Your task to perform on an android device: Open Google Chrome and click the shortcut for Amazon.com Image 0: 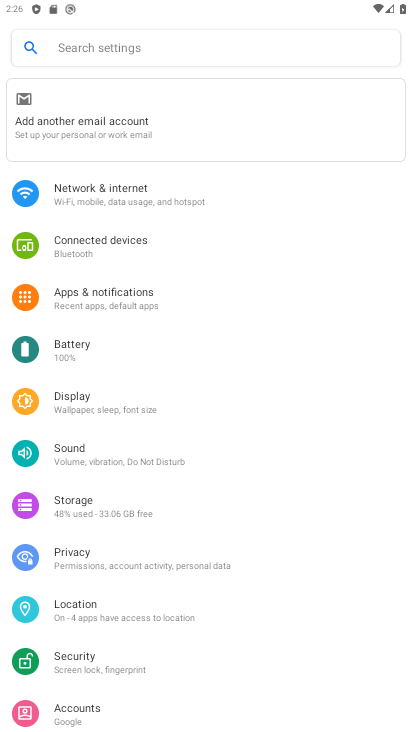
Step 0: press home button
Your task to perform on an android device: Open Google Chrome and click the shortcut for Amazon.com Image 1: 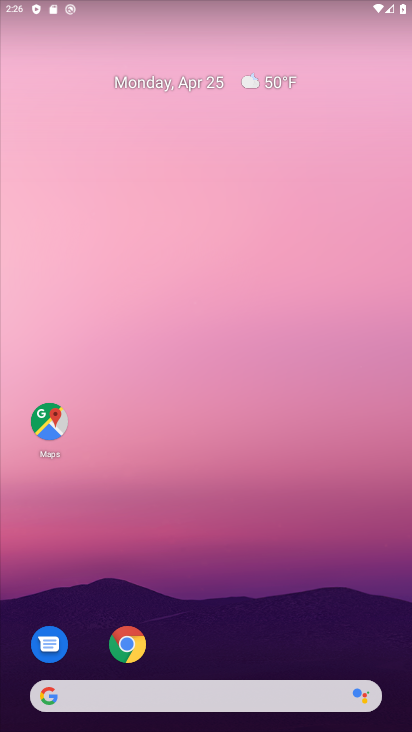
Step 1: drag from (176, 606) to (212, 266)
Your task to perform on an android device: Open Google Chrome and click the shortcut for Amazon.com Image 2: 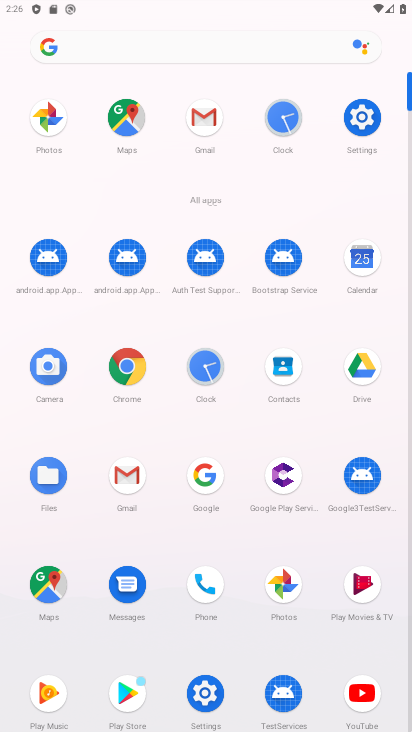
Step 2: click (131, 361)
Your task to perform on an android device: Open Google Chrome and click the shortcut for Amazon.com Image 3: 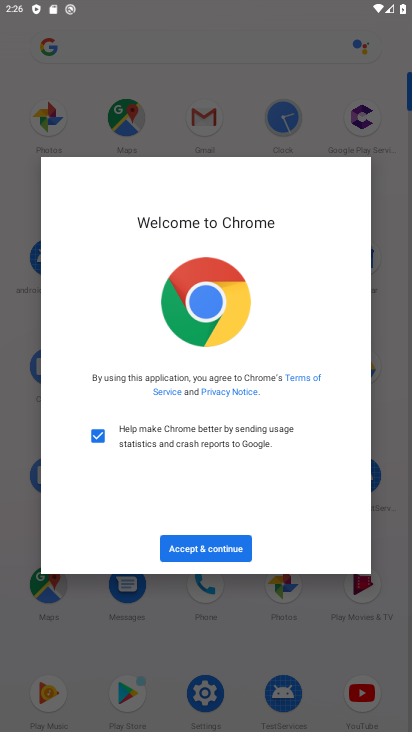
Step 3: click (73, 629)
Your task to perform on an android device: Open Google Chrome and click the shortcut for Amazon.com Image 4: 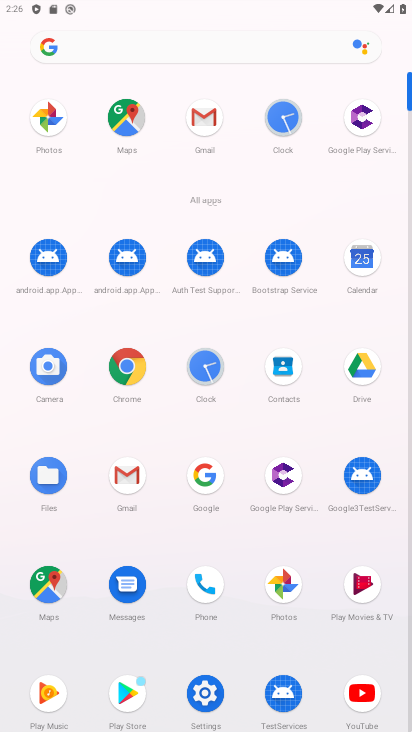
Step 4: click (229, 542)
Your task to perform on an android device: Open Google Chrome and click the shortcut for Amazon.com Image 5: 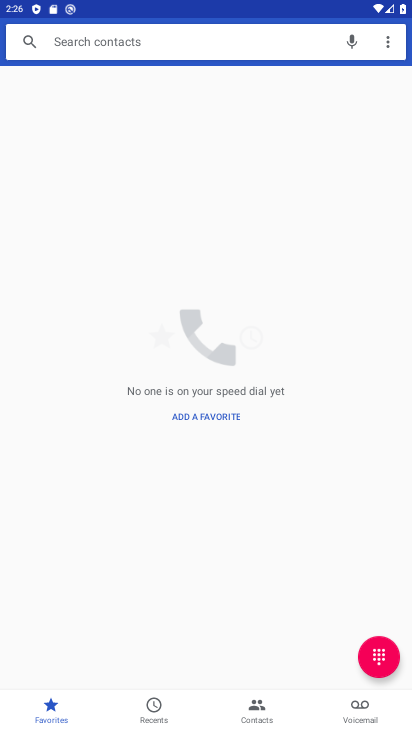
Step 5: press home button
Your task to perform on an android device: Open Google Chrome and click the shortcut for Amazon.com Image 6: 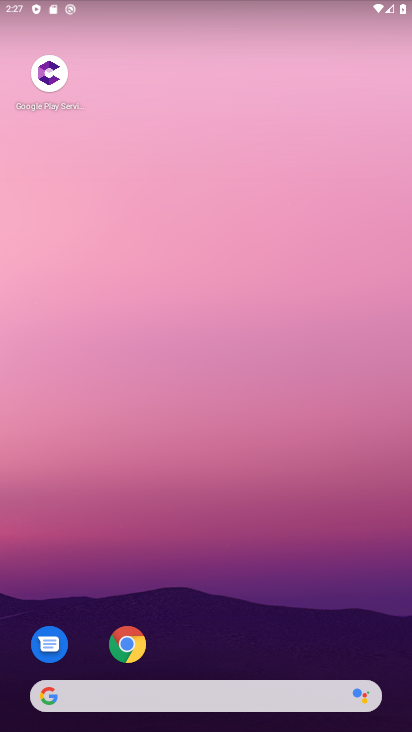
Step 6: click (133, 641)
Your task to perform on an android device: Open Google Chrome and click the shortcut for Amazon.com Image 7: 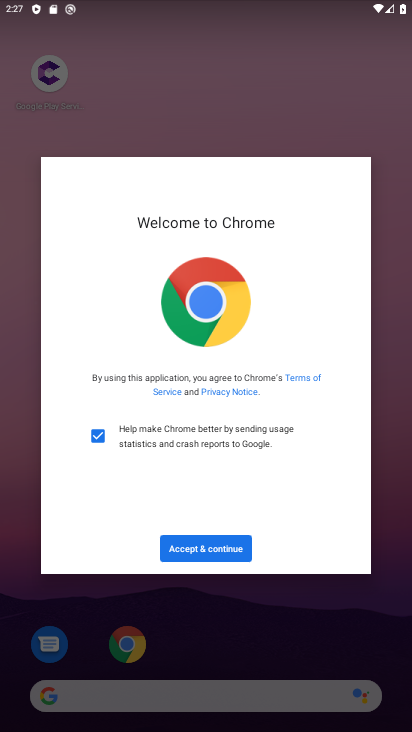
Step 7: click (182, 548)
Your task to perform on an android device: Open Google Chrome and click the shortcut for Amazon.com Image 8: 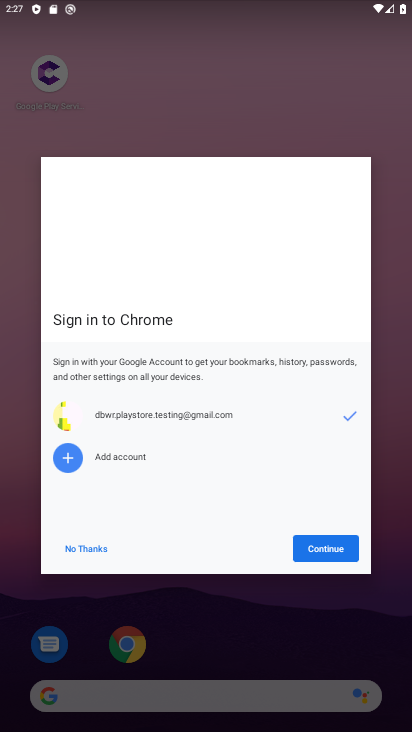
Step 8: click (324, 554)
Your task to perform on an android device: Open Google Chrome and click the shortcut for Amazon.com Image 9: 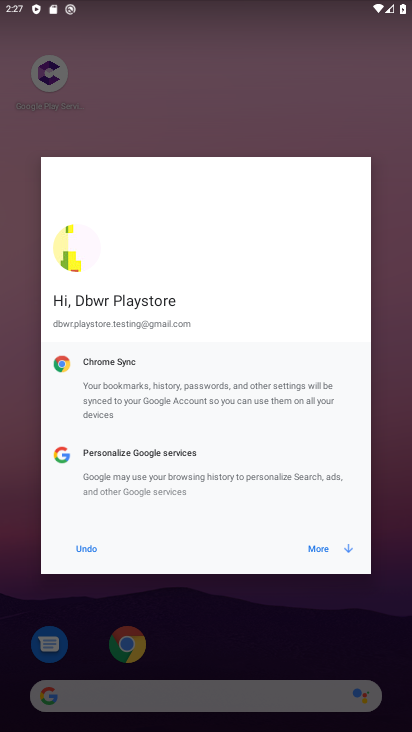
Step 9: click (324, 553)
Your task to perform on an android device: Open Google Chrome and click the shortcut for Amazon.com Image 10: 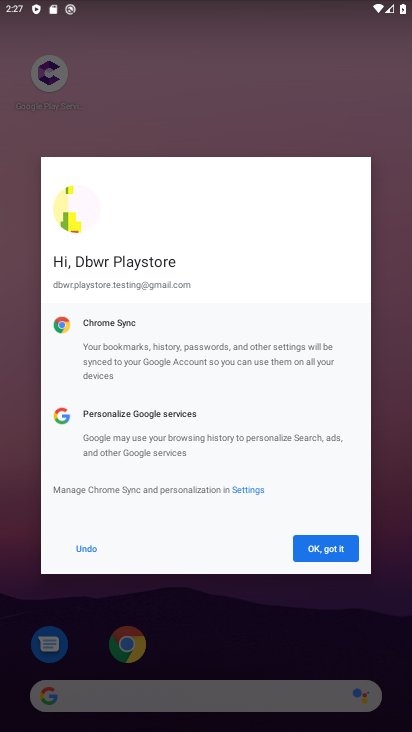
Step 10: click (324, 553)
Your task to perform on an android device: Open Google Chrome and click the shortcut for Amazon.com Image 11: 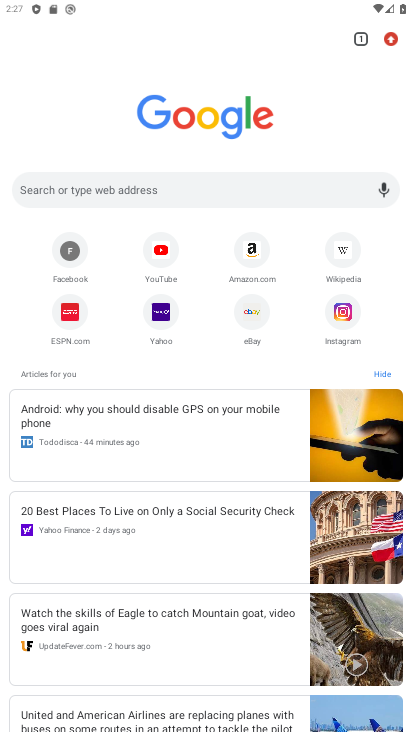
Step 11: click (67, 199)
Your task to perform on an android device: Open Google Chrome and click the shortcut for Amazon.com Image 12: 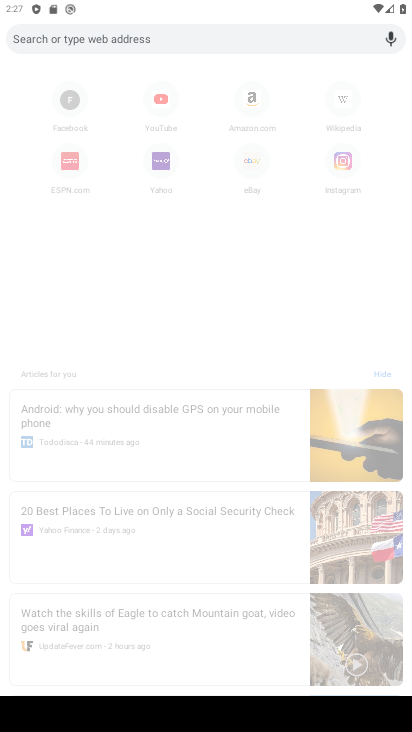
Step 12: type "Amazon.com"
Your task to perform on an android device: Open Google Chrome and click the shortcut for Amazon.com Image 13: 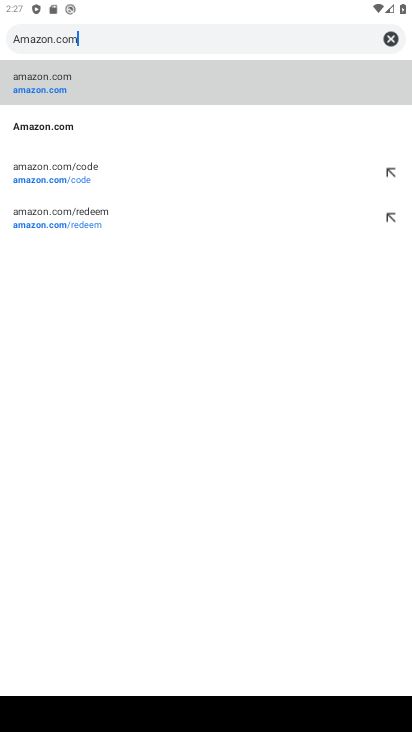
Step 13: click (143, 93)
Your task to perform on an android device: Open Google Chrome and click the shortcut for Amazon.com Image 14: 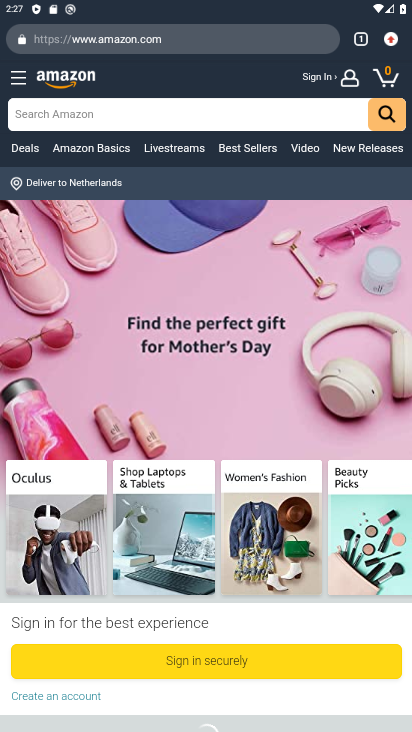
Step 14: task complete